Your task to perform on an android device: Go to location settings Image 0: 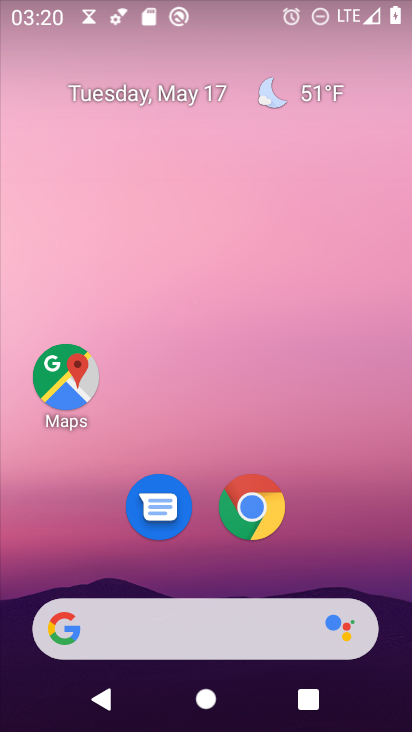
Step 0: drag from (318, 594) to (306, 71)
Your task to perform on an android device: Go to location settings Image 1: 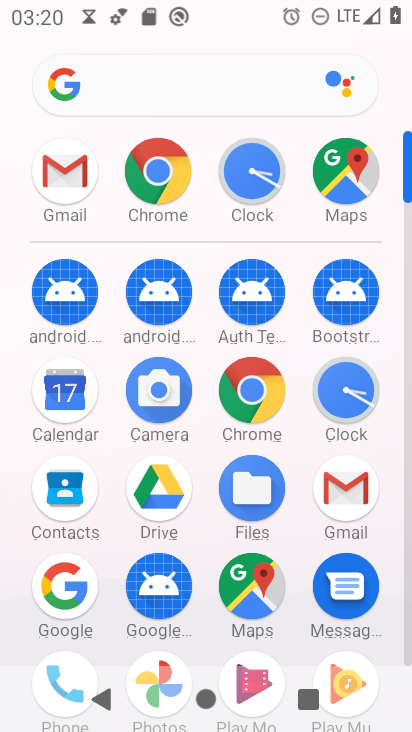
Step 1: drag from (297, 539) to (313, 317)
Your task to perform on an android device: Go to location settings Image 2: 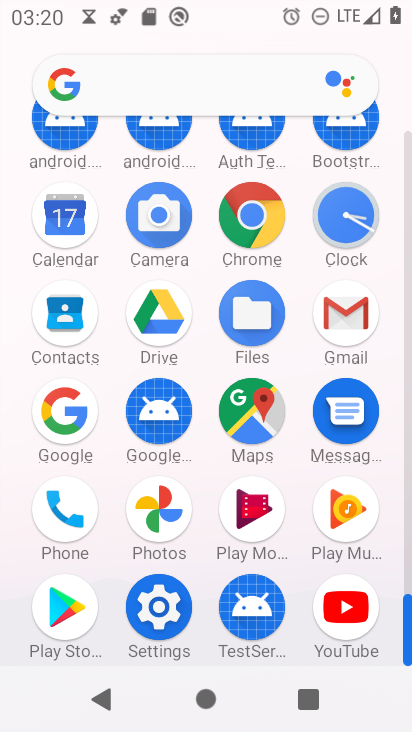
Step 2: click (158, 613)
Your task to perform on an android device: Go to location settings Image 3: 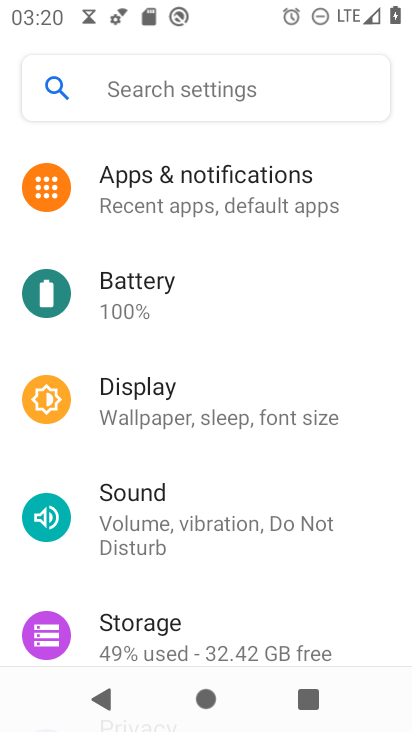
Step 3: drag from (199, 590) to (243, 422)
Your task to perform on an android device: Go to location settings Image 4: 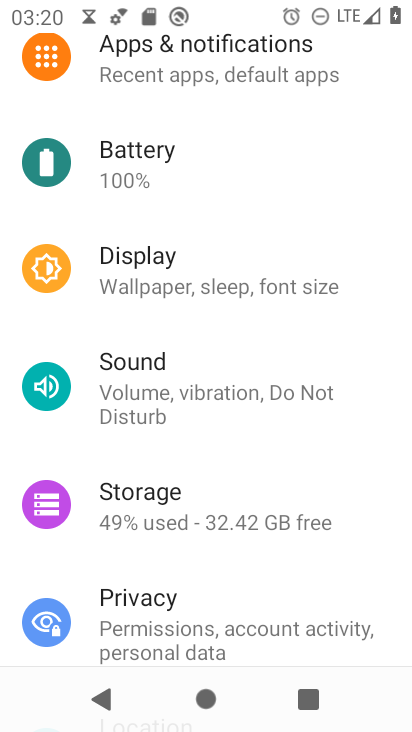
Step 4: drag from (294, 586) to (319, 419)
Your task to perform on an android device: Go to location settings Image 5: 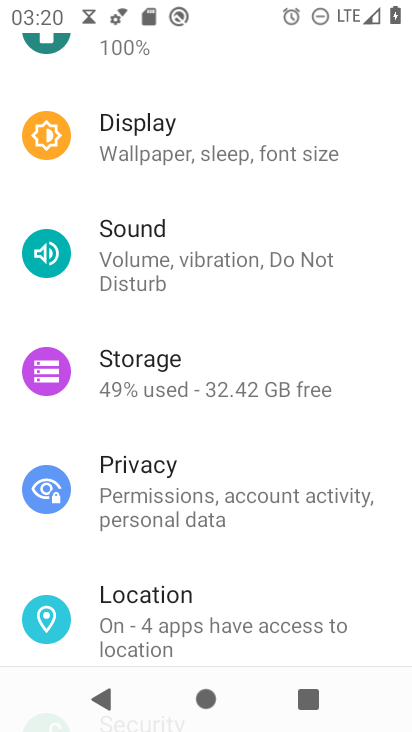
Step 5: click (315, 636)
Your task to perform on an android device: Go to location settings Image 6: 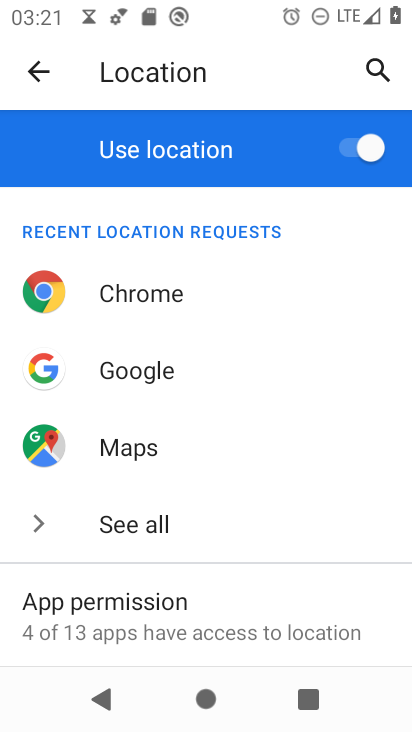
Step 6: task complete